Your task to perform on an android device: Go to sound settings Image 0: 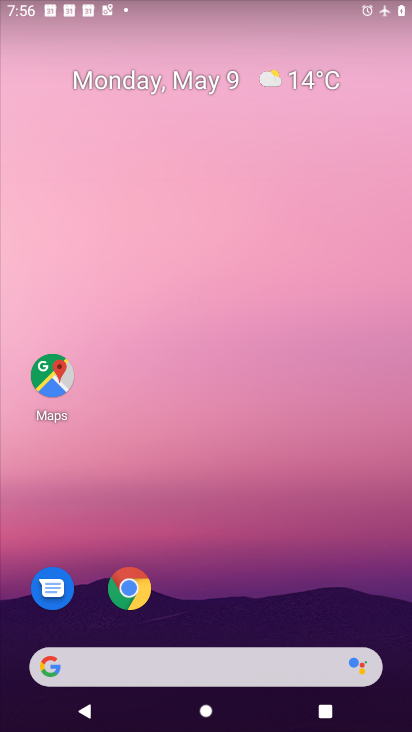
Step 0: drag from (319, 624) to (304, 9)
Your task to perform on an android device: Go to sound settings Image 1: 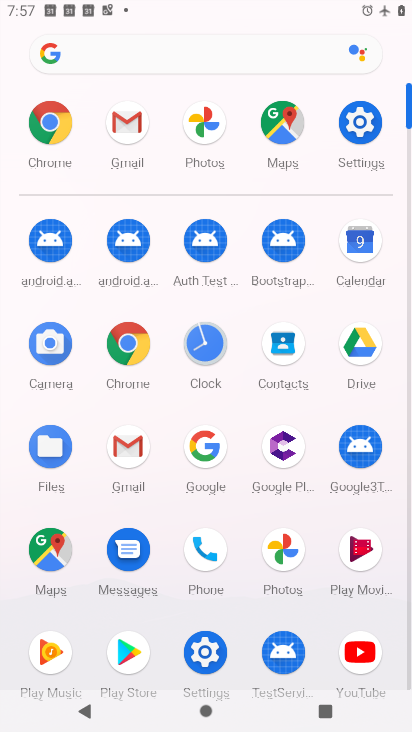
Step 1: click (201, 651)
Your task to perform on an android device: Go to sound settings Image 2: 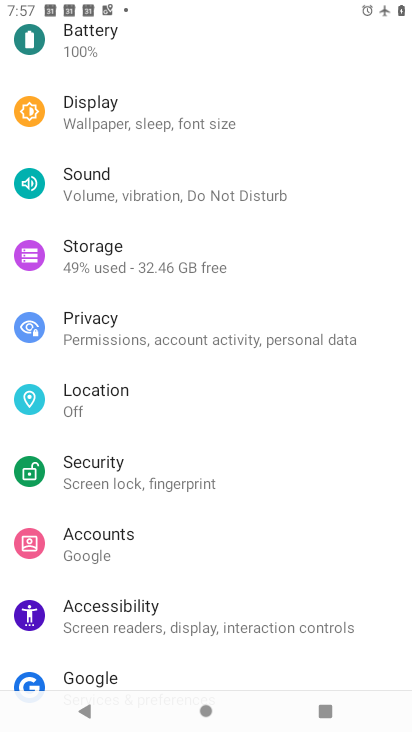
Step 2: click (127, 169)
Your task to perform on an android device: Go to sound settings Image 3: 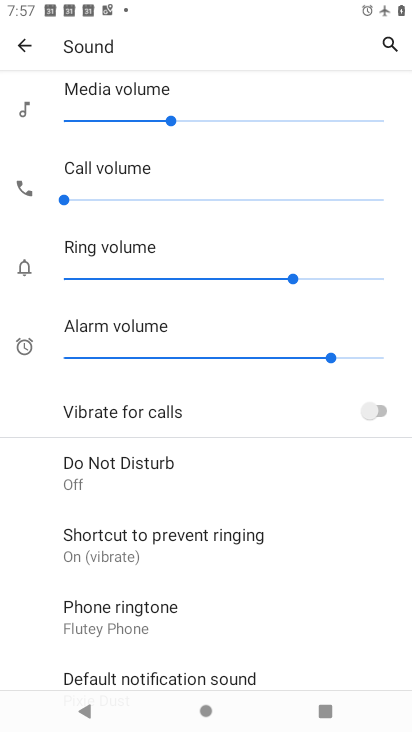
Step 3: task complete